Your task to perform on an android device: Go to internet settings Image 0: 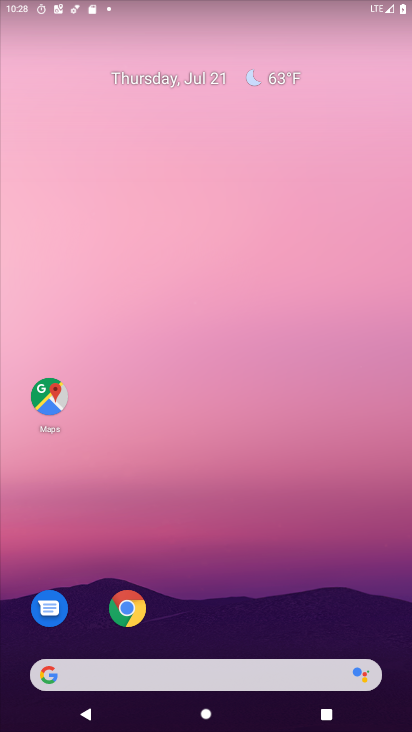
Step 0: drag from (201, 638) to (206, 71)
Your task to perform on an android device: Go to internet settings Image 1: 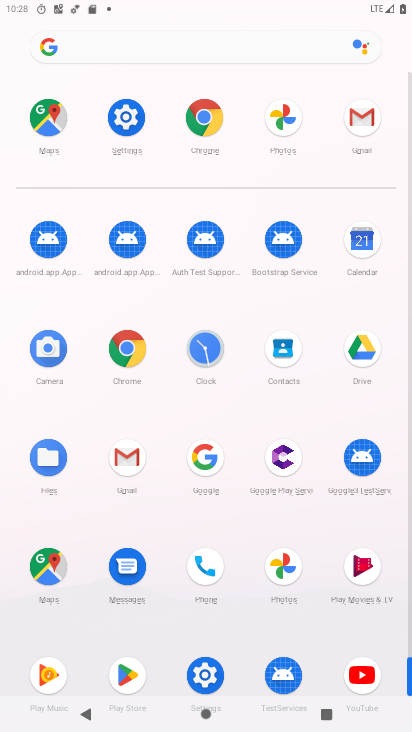
Step 1: click (126, 140)
Your task to perform on an android device: Go to internet settings Image 2: 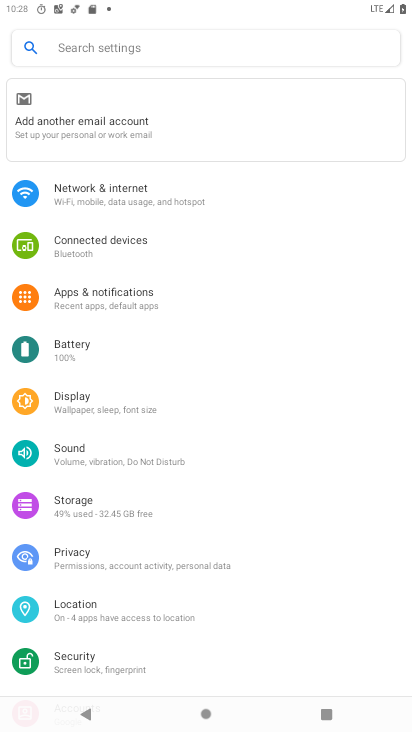
Step 2: click (119, 204)
Your task to perform on an android device: Go to internet settings Image 3: 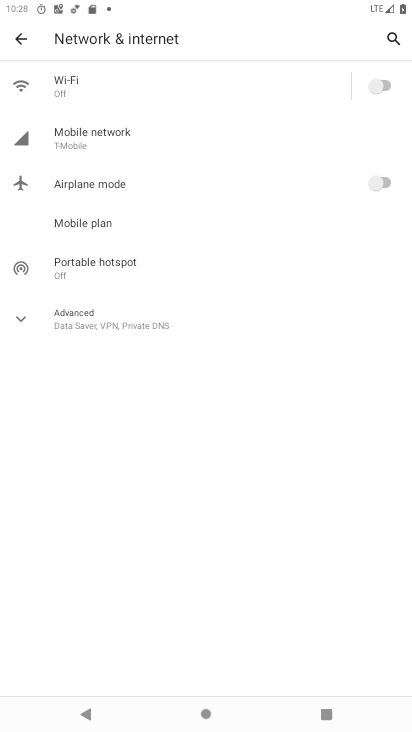
Step 3: click (113, 150)
Your task to perform on an android device: Go to internet settings Image 4: 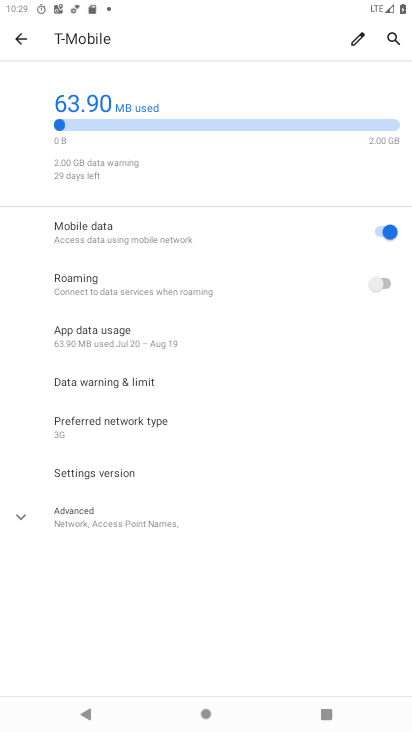
Step 4: task complete